Your task to perform on an android device: open app "Adobe Acrobat Reader: Edit PDF" Image 0: 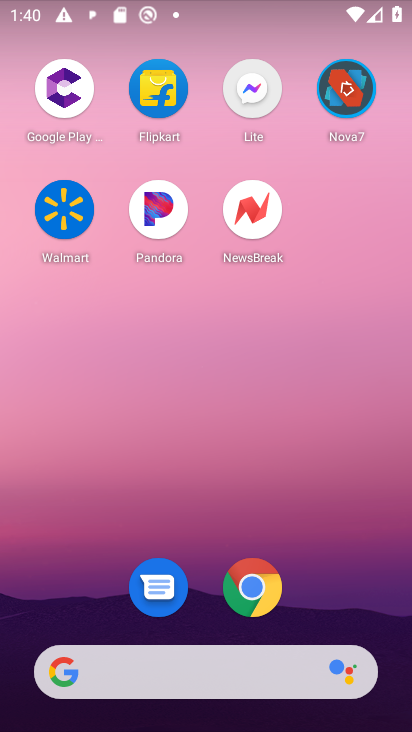
Step 0: drag from (221, 561) to (259, 35)
Your task to perform on an android device: open app "Adobe Acrobat Reader: Edit PDF" Image 1: 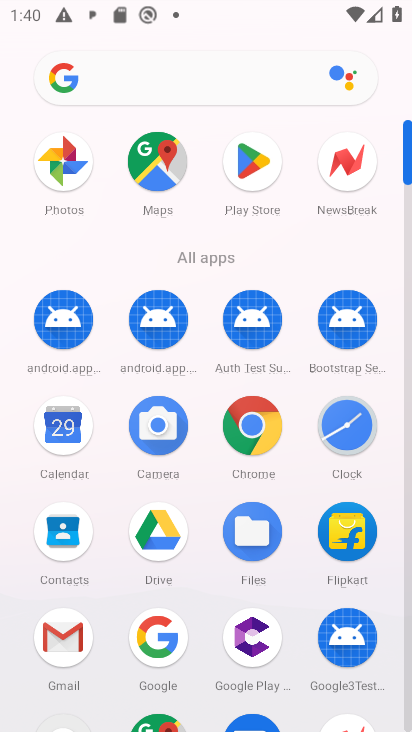
Step 1: click (265, 154)
Your task to perform on an android device: open app "Adobe Acrobat Reader: Edit PDF" Image 2: 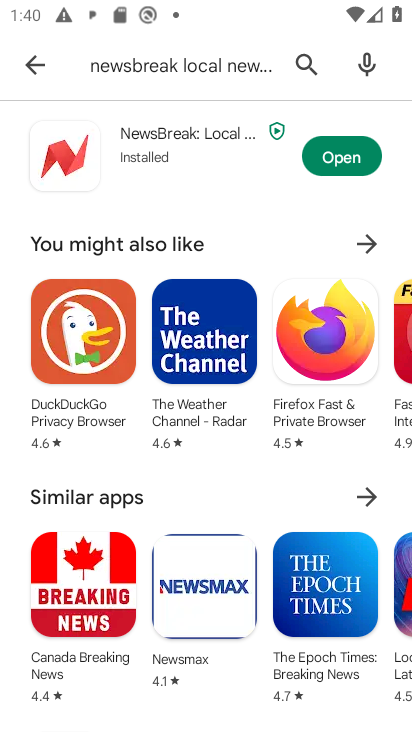
Step 2: click (307, 71)
Your task to perform on an android device: open app "Adobe Acrobat Reader: Edit PDF" Image 3: 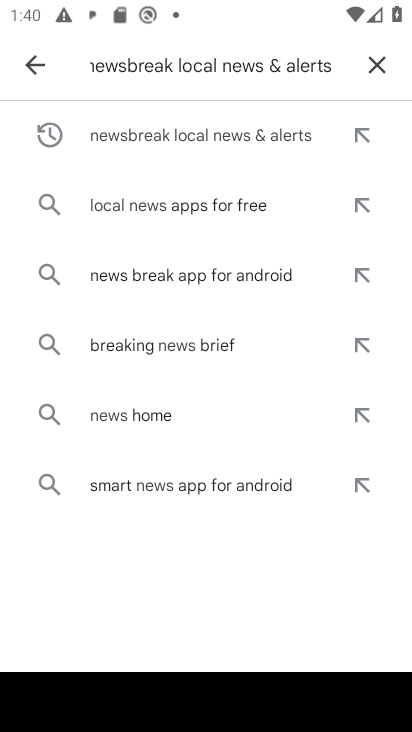
Step 3: click (381, 65)
Your task to perform on an android device: open app "Adobe Acrobat Reader: Edit PDF" Image 4: 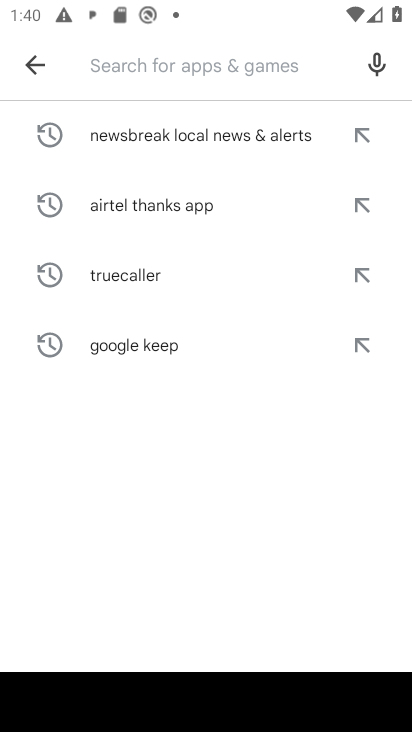
Step 4: type "adobe Acrobat Reader: Edit PDF"
Your task to perform on an android device: open app "Adobe Acrobat Reader: Edit PDF" Image 5: 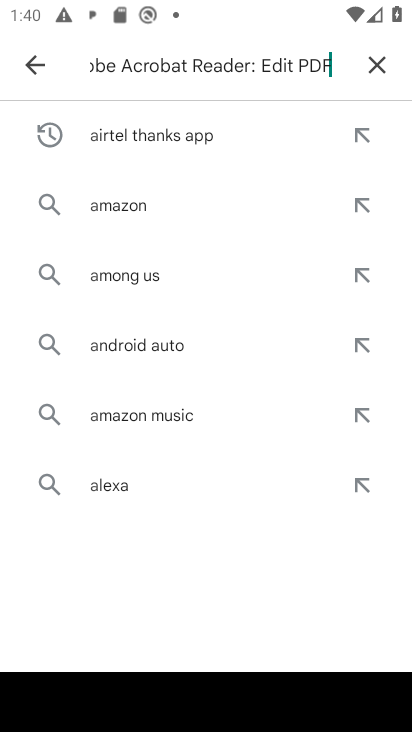
Step 5: type ""
Your task to perform on an android device: open app "Adobe Acrobat Reader: Edit PDF" Image 6: 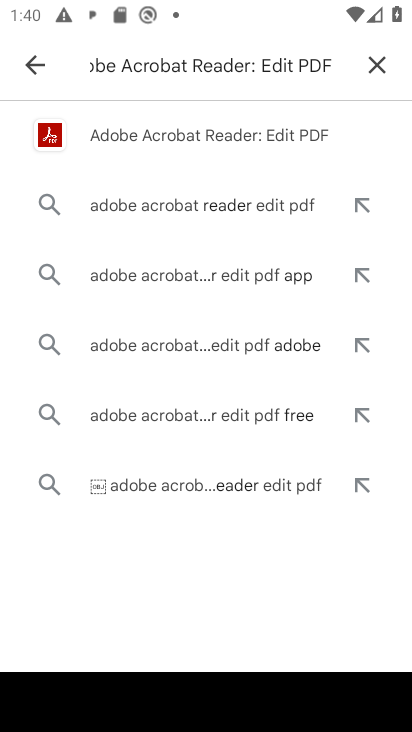
Step 6: click (282, 134)
Your task to perform on an android device: open app "Adobe Acrobat Reader: Edit PDF" Image 7: 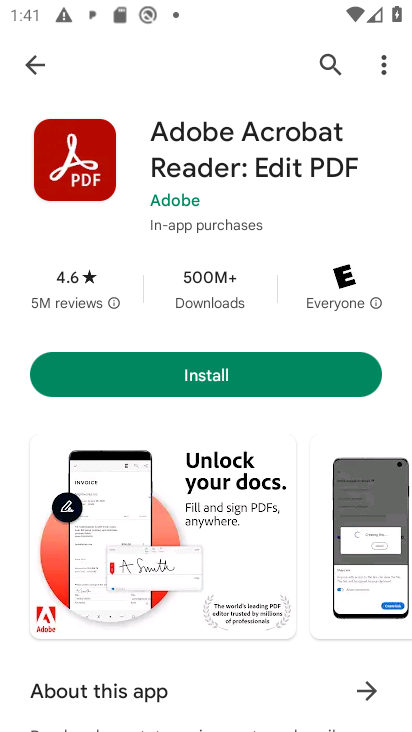
Step 7: task complete